Your task to perform on an android device: Go to display settings Image 0: 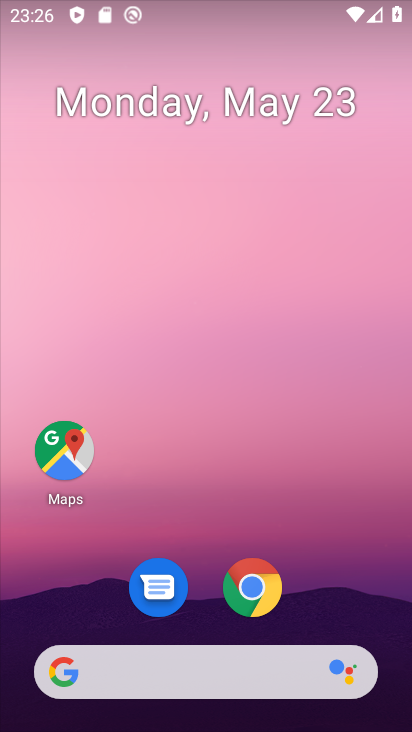
Step 0: drag from (331, 603) to (217, 81)
Your task to perform on an android device: Go to display settings Image 1: 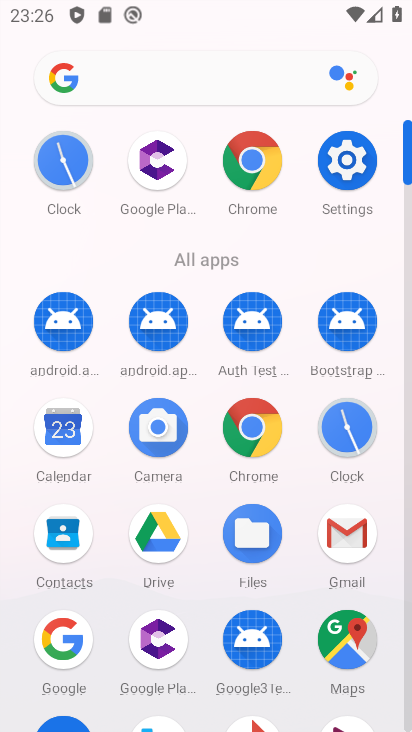
Step 1: click (348, 157)
Your task to perform on an android device: Go to display settings Image 2: 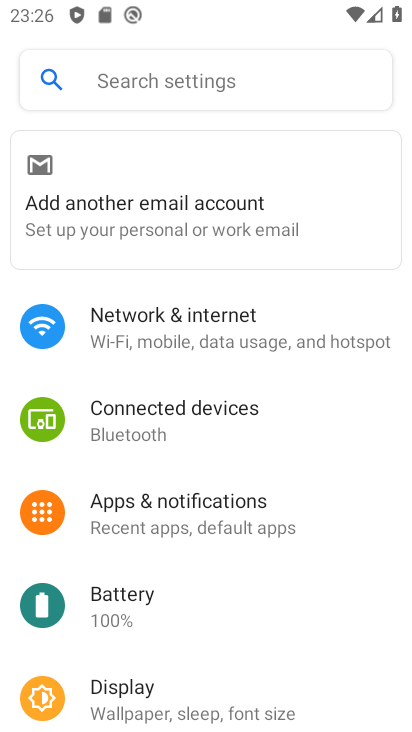
Step 2: drag from (200, 594) to (230, 492)
Your task to perform on an android device: Go to display settings Image 3: 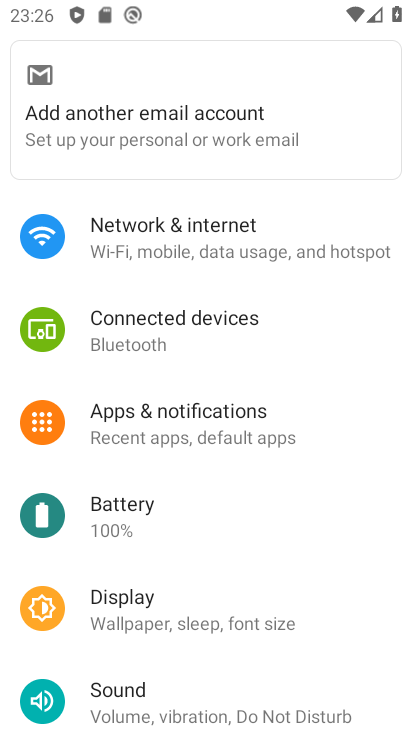
Step 3: click (124, 616)
Your task to perform on an android device: Go to display settings Image 4: 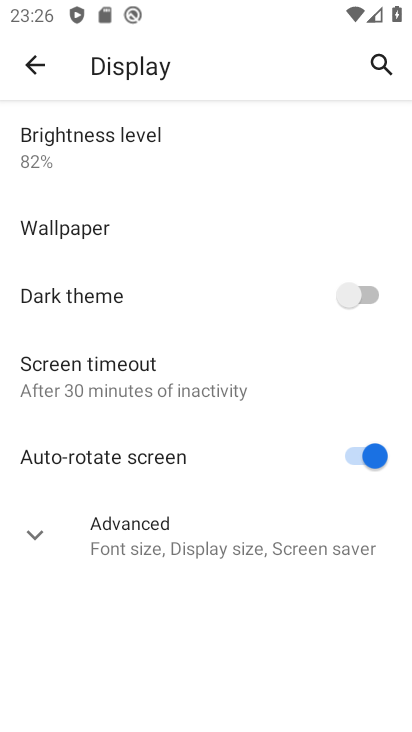
Step 4: task complete